Your task to perform on an android device: make emails show in primary in the gmail app Image 0: 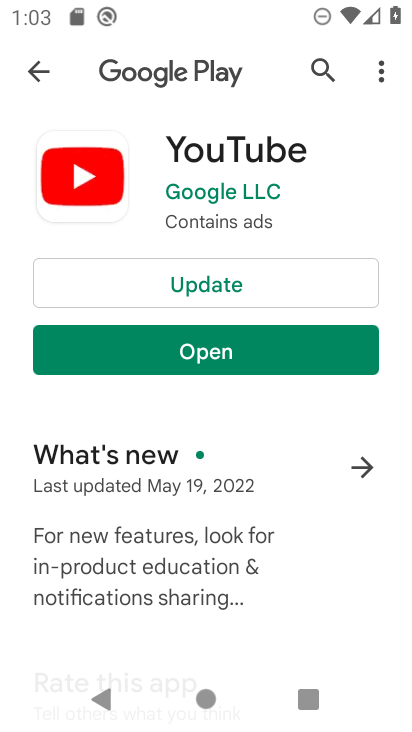
Step 0: press home button
Your task to perform on an android device: make emails show in primary in the gmail app Image 1: 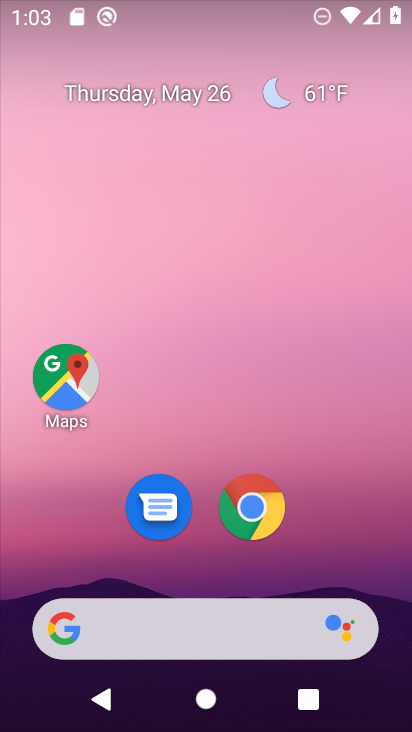
Step 1: drag from (377, 549) to (326, 29)
Your task to perform on an android device: make emails show in primary in the gmail app Image 2: 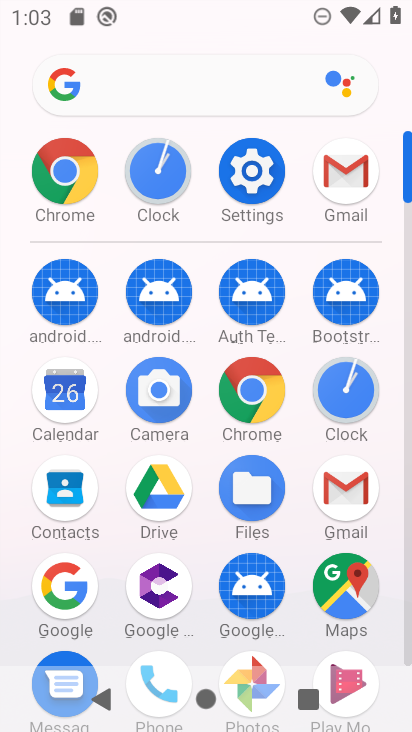
Step 2: click (350, 505)
Your task to perform on an android device: make emails show in primary in the gmail app Image 3: 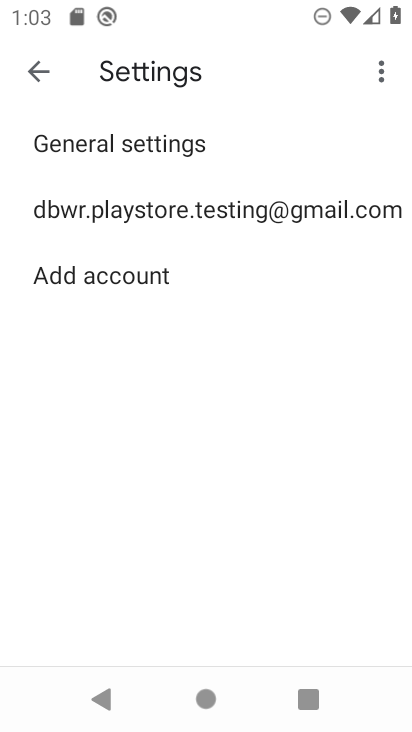
Step 3: click (44, 50)
Your task to perform on an android device: make emails show in primary in the gmail app Image 4: 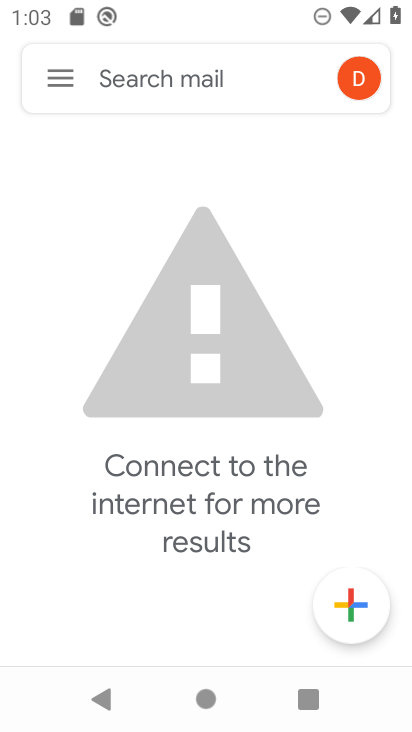
Step 4: click (51, 65)
Your task to perform on an android device: make emails show in primary in the gmail app Image 5: 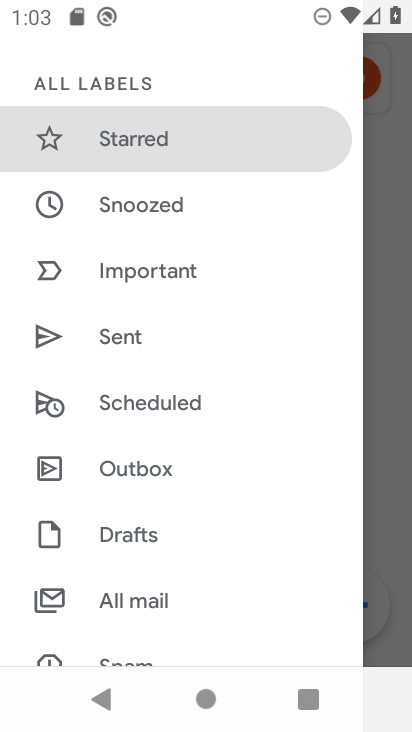
Step 5: drag from (165, 588) to (112, 240)
Your task to perform on an android device: make emails show in primary in the gmail app Image 6: 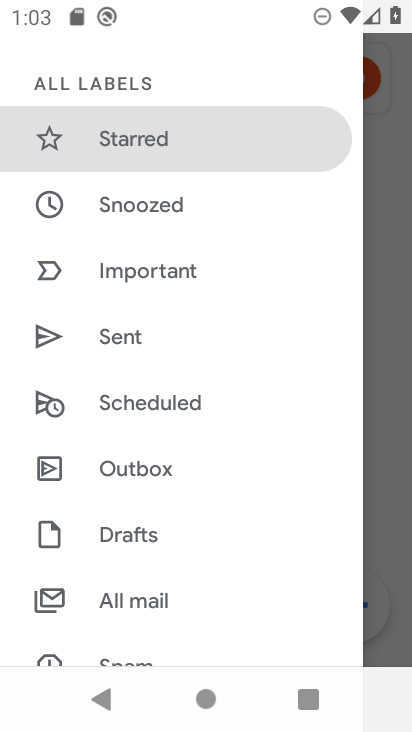
Step 6: drag from (143, 604) to (120, 117)
Your task to perform on an android device: make emails show in primary in the gmail app Image 7: 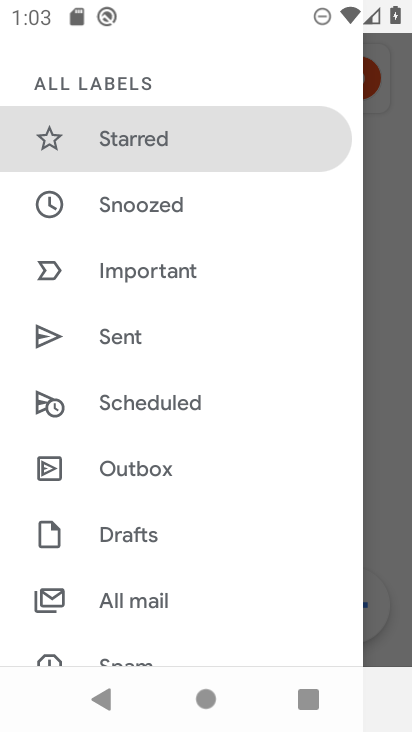
Step 7: drag from (178, 580) to (108, 42)
Your task to perform on an android device: make emails show in primary in the gmail app Image 8: 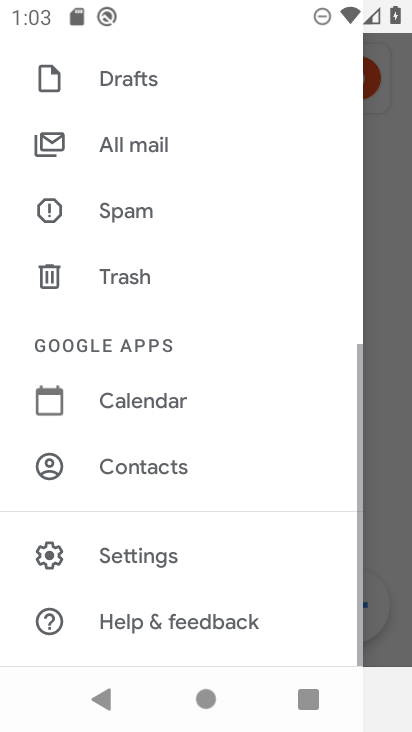
Step 8: click (134, 555)
Your task to perform on an android device: make emails show in primary in the gmail app Image 9: 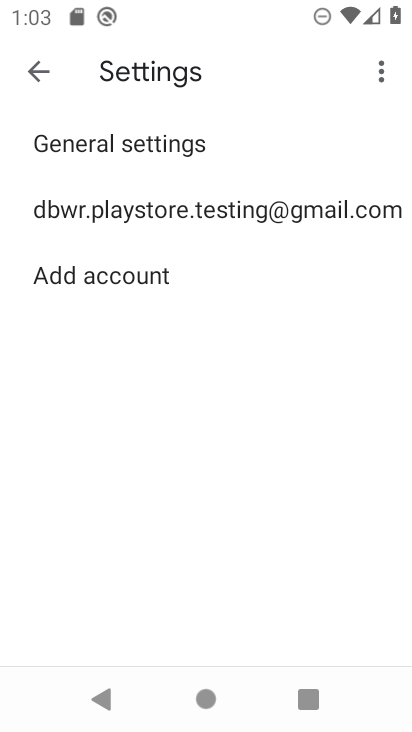
Step 9: click (73, 164)
Your task to perform on an android device: make emails show in primary in the gmail app Image 10: 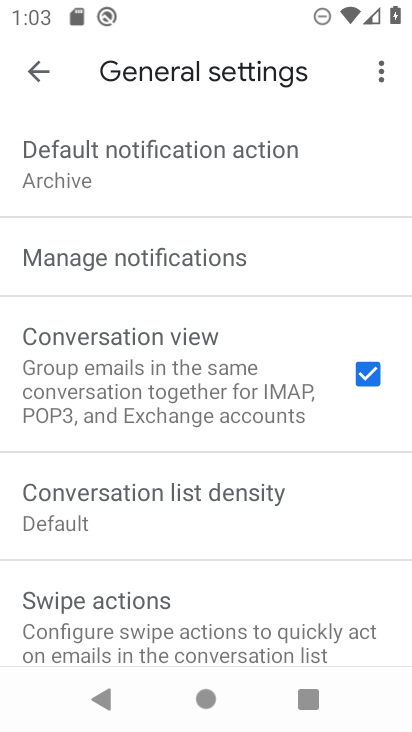
Step 10: task complete